Your task to perform on an android device: check google app version Image 0: 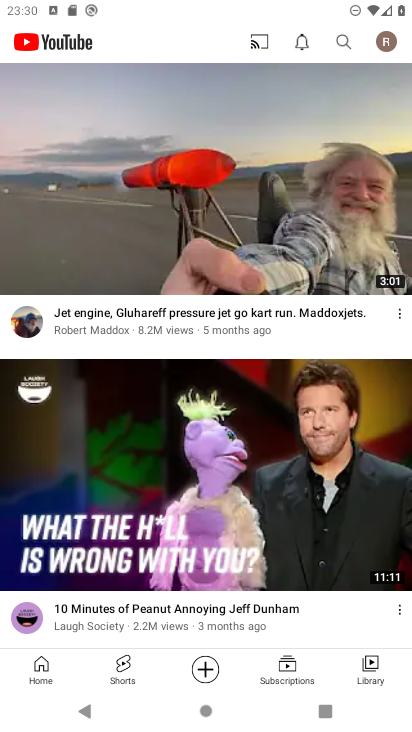
Step 0: press home button
Your task to perform on an android device: check google app version Image 1: 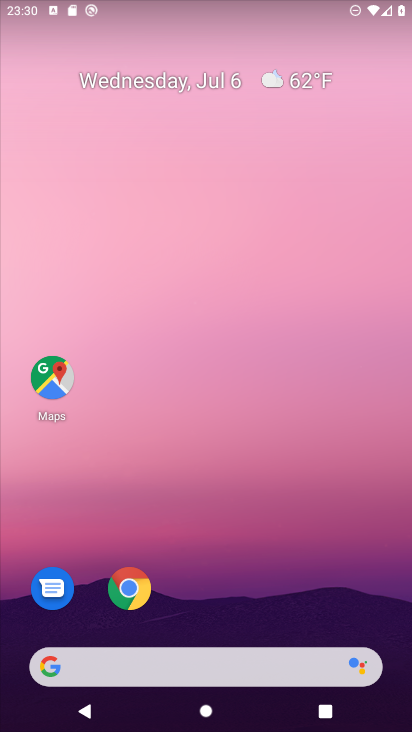
Step 1: click (130, 588)
Your task to perform on an android device: check google app version Image 2: 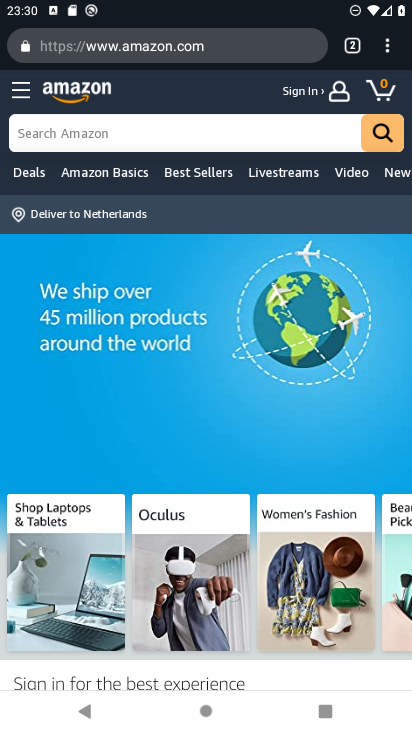
Step 2: click (387, 44)
Your task to perform on an android device: check google app version Image 3: 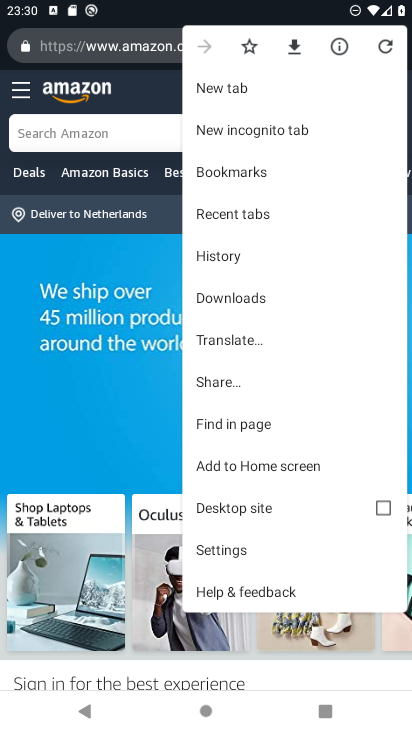
Step 3: click (226, 548)
Your task to perform on an android device: check google app version Image 4: 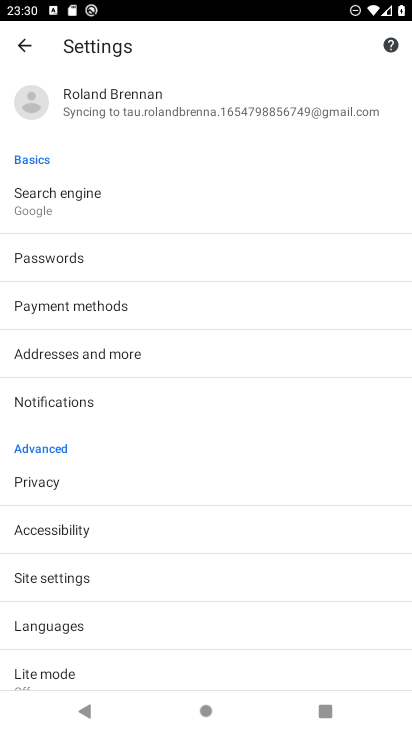
Step 4: drag from (181, 663) to (190, 305)
Your task to perform on an android device: check google app version Image 5: 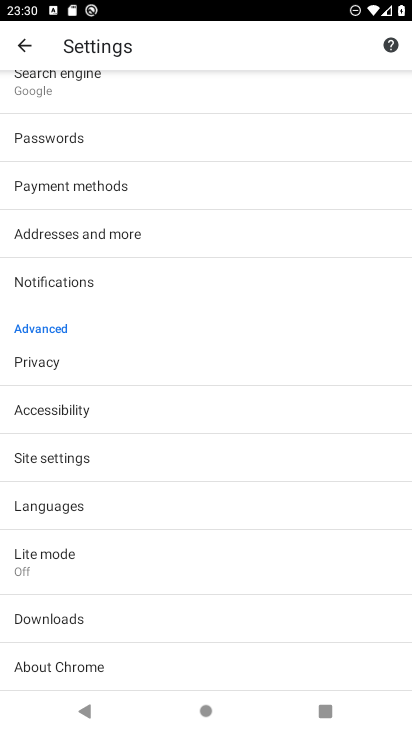
Step 5: click (63, 664)
Your task to perform on an android device: check google app version Image 6: 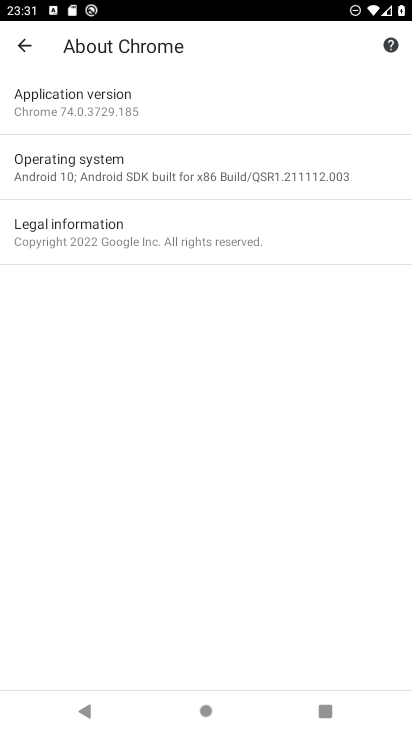
Step 6: click (72, 99)
Your task to perform on an android device: check google app version Image 7: 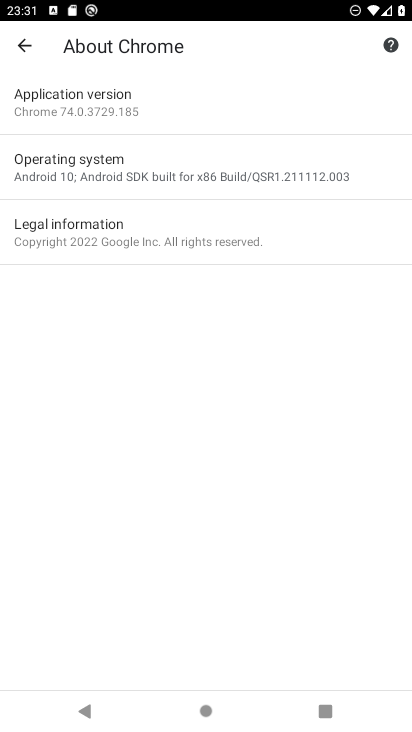
Step 7: task complete